Your task to perform on an android device: turn off location Image 0: 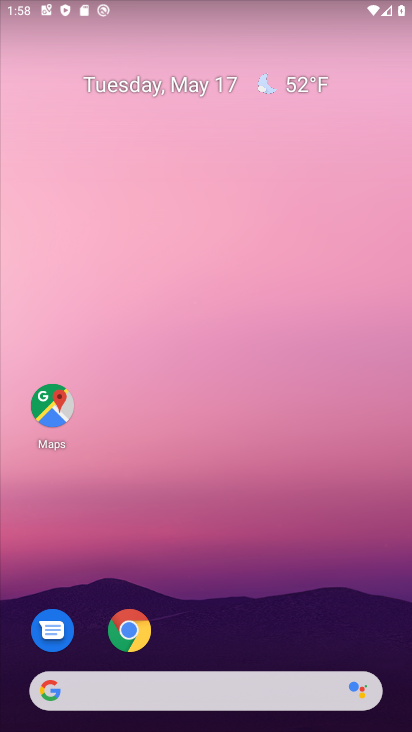
Step 0: drag from (266, 608) to (328, 169)
Your task to perform on an android device: turn off location Image 1: 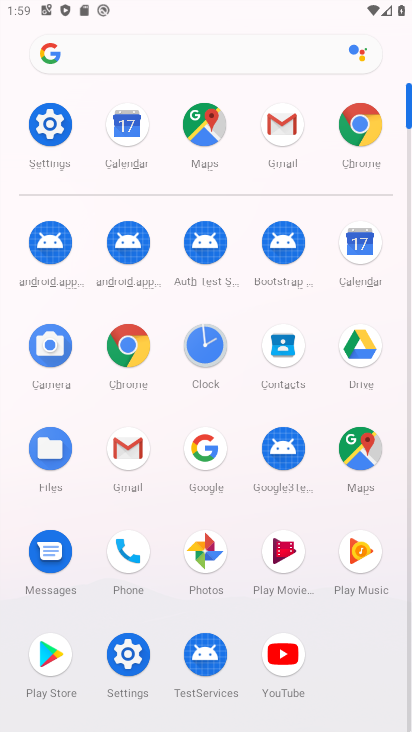
Step 1: click (52, 126)
Your task to perform on an android device: turn off location Image 2: 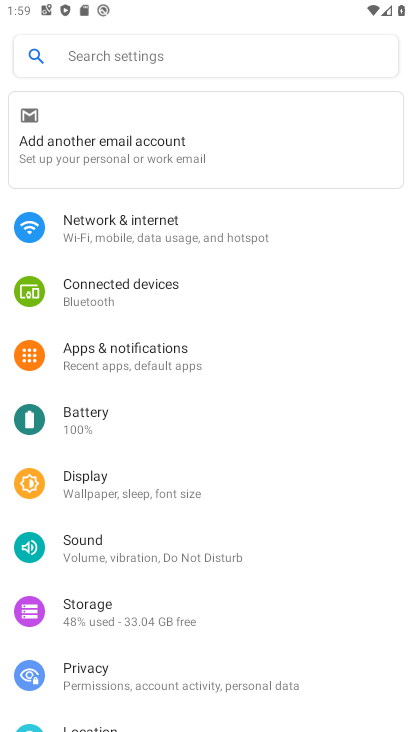
Step 2: drag from (121, 631) to (169, 249)
Your task to perform on an android device: turn off location Image 3: 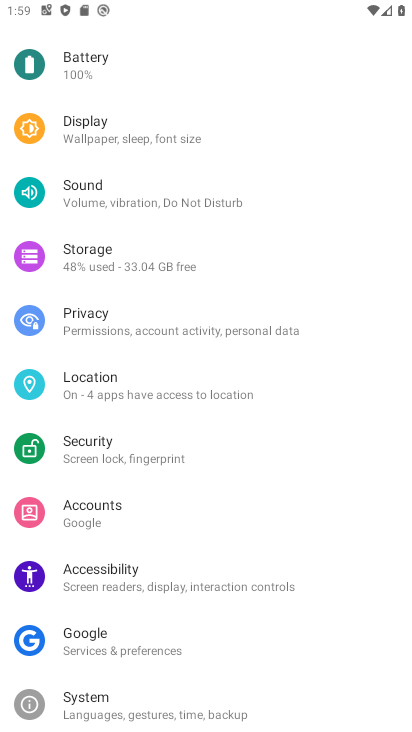
Step 3: click (97, 380)
Your task to perform on an android device: turn off location Image 4: 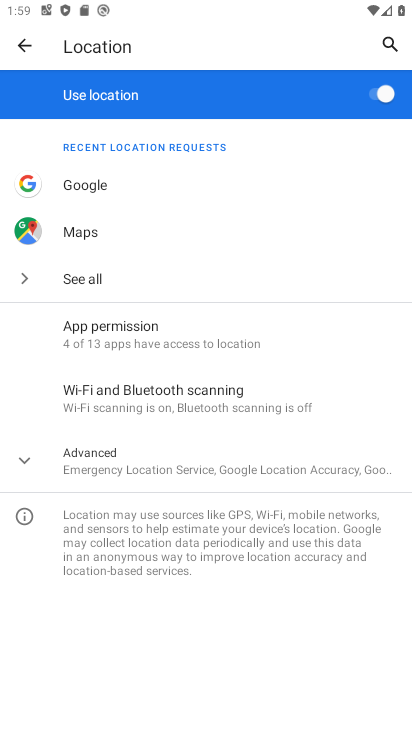
Step 4: click (390, 92)
Your task to perform on an android device: turn off location Image 5: 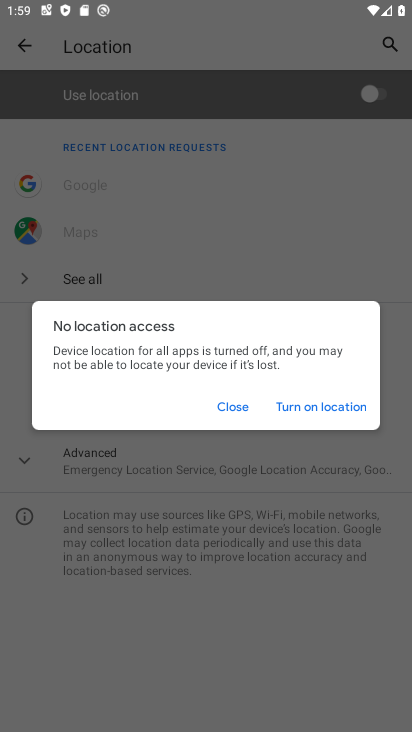
Step 5: task complete